Your task to perform on an android device: What's the weather going to be this weekend? Image 0: 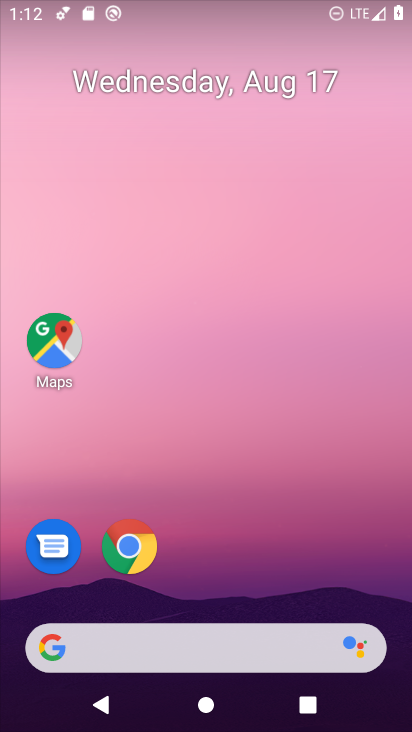
Step 0: click (88, 646)
Your task to perform on an android device: What's the weather going to be this weekend? Image 1: 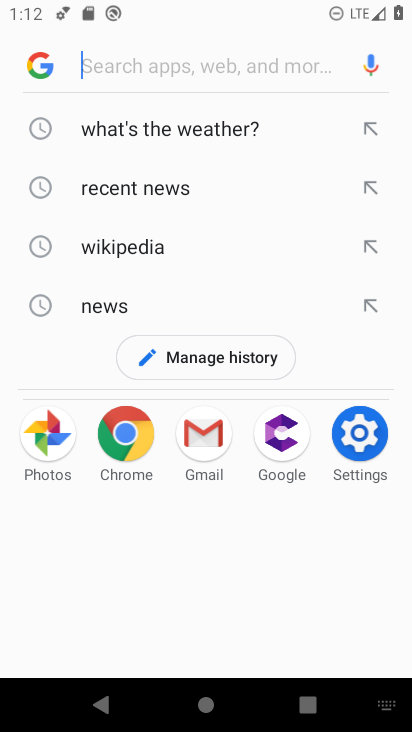
Step 1: click (120, 127)
Your task to perform on an android device: What's the weather going to be this weekend? Image 2: 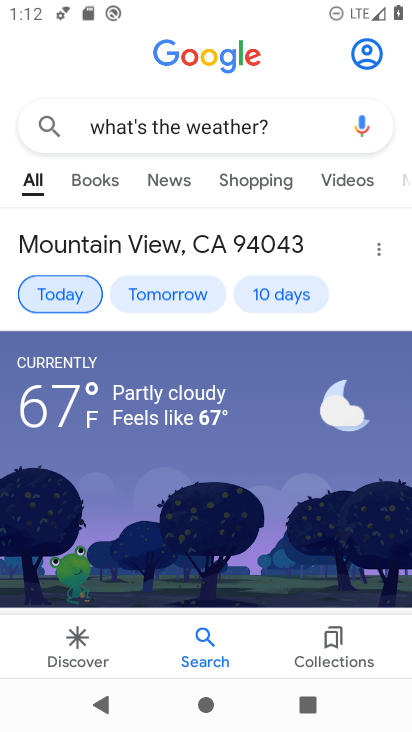
Step 2: click (268, 287)
Your task to perform on an android device: What's the weather going to be this weekend? Image 3: 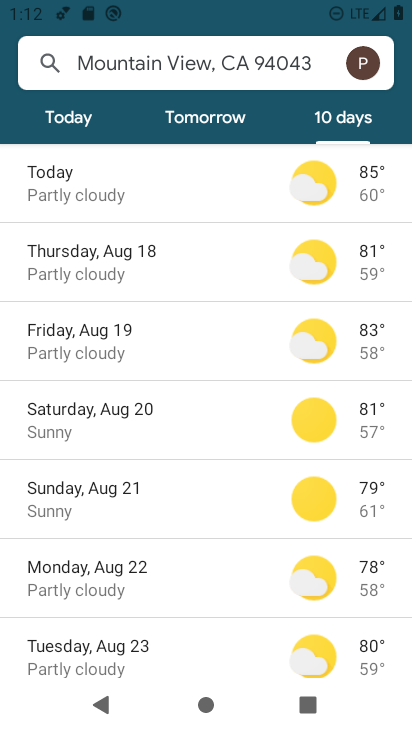
Step 3: task complete